Your task to perform on an android device: empty trash in google photos Image 0: 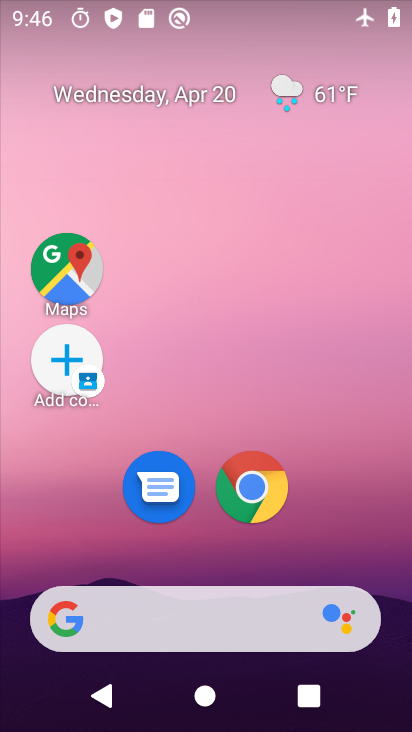
Step 0: drag from (352, 529) to (379, 59)
Your task to perform on an android device: empty trash in google photos Image 1: 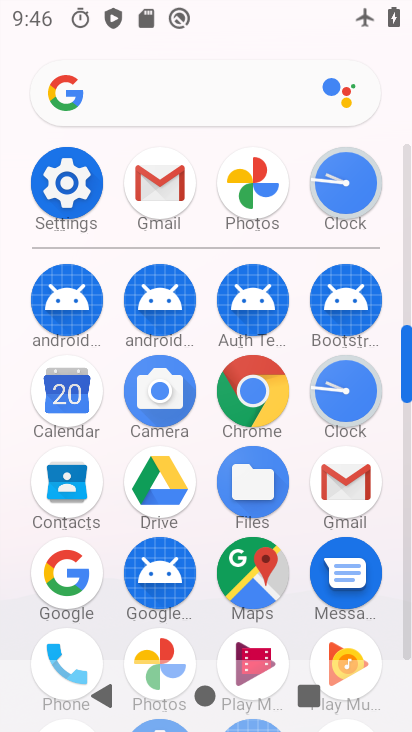
Step 1: click (153, 644)
Your task to perform on an android device: empty trash in google photos Image 2: 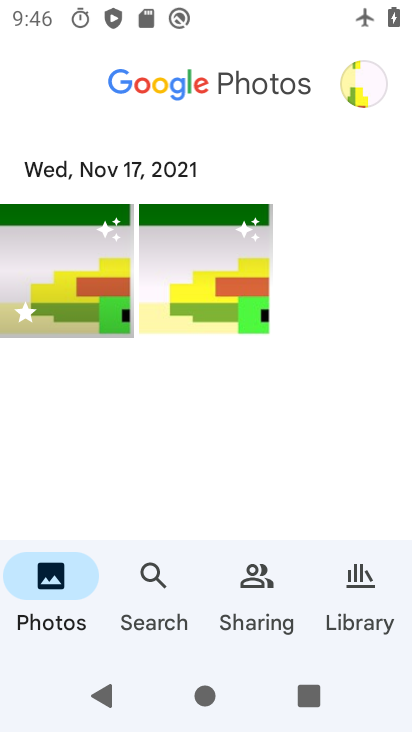
Step 2: click (348, 605)
Your task to perform on an android device: empty trash in google photos Image 3: 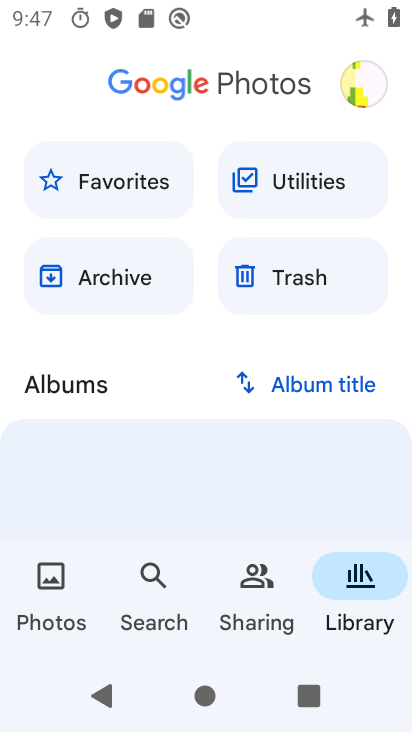
Step 3: click (314, 274)
Your task to perform on an android device: empty trash in google photos Image 4: 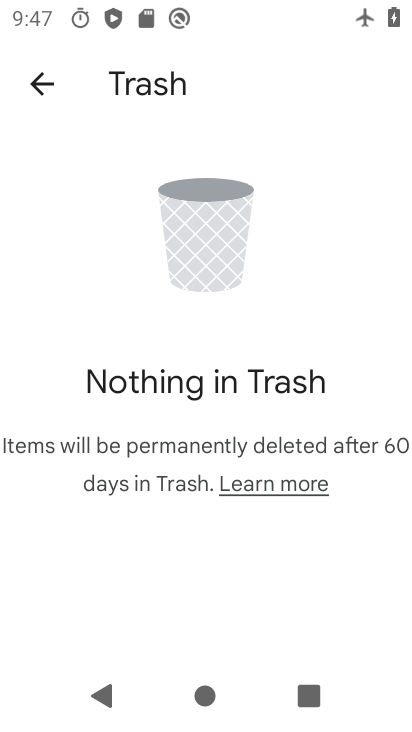
Step 4: task complete